Your task to perform on an android device: Open Wikipedia Image 0: 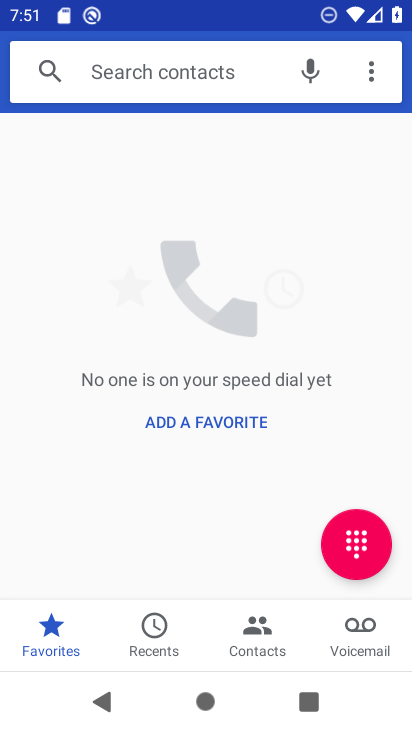
Step 0: press home button
Your task to perform on an android device: Open Wikipedia Image 1: 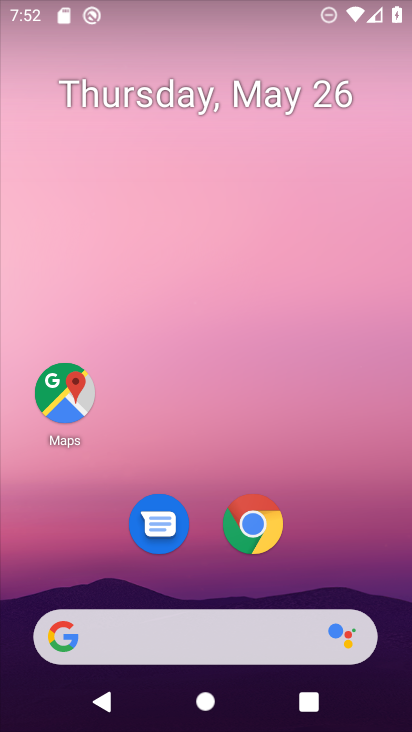
Step 1: click (256, 524)
Your task to perform on an android device: Open Wikipedia Image 2: 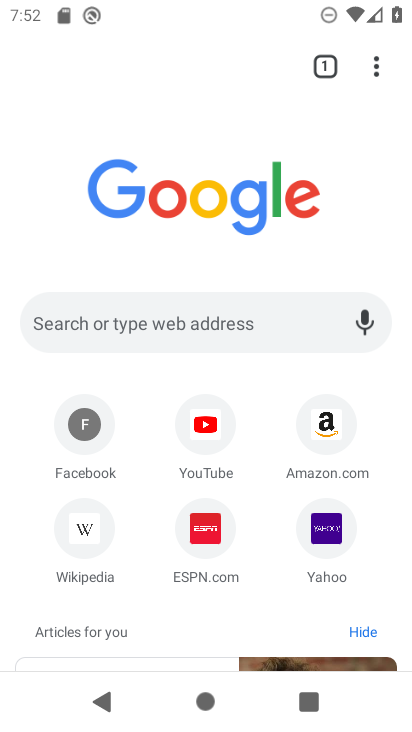
Step 2: click (88, 514)
Your task to perform on an android device: Open Wikipedia Image 3: 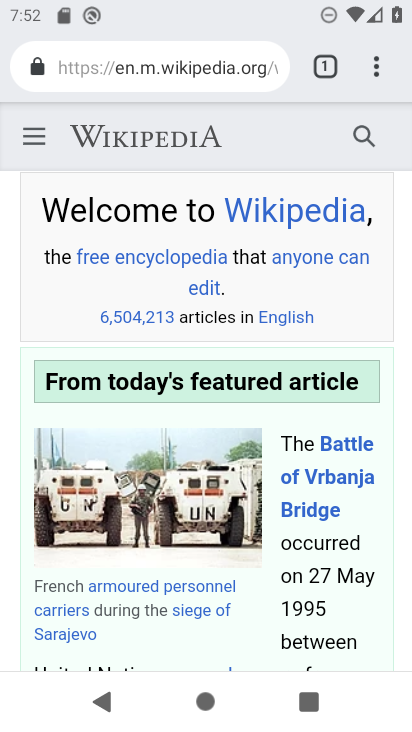
Step 3: task complete